Your task to perform on an android device: set the stopwatch Image 0: 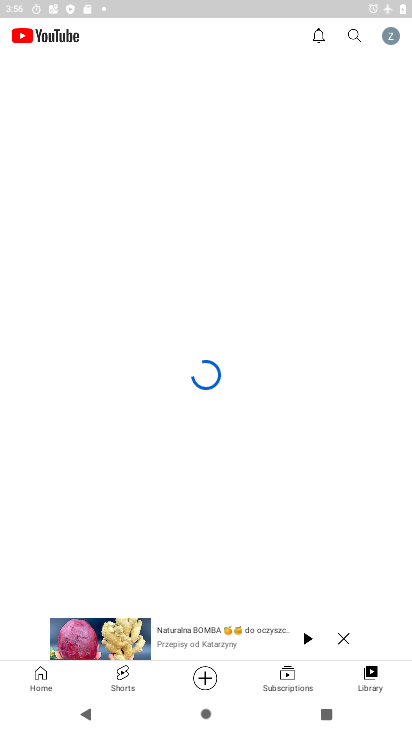
Step 0: drag from (251, 718) to (262, 386)
Your task to perform on an android device: set the stopwatch Image 1: 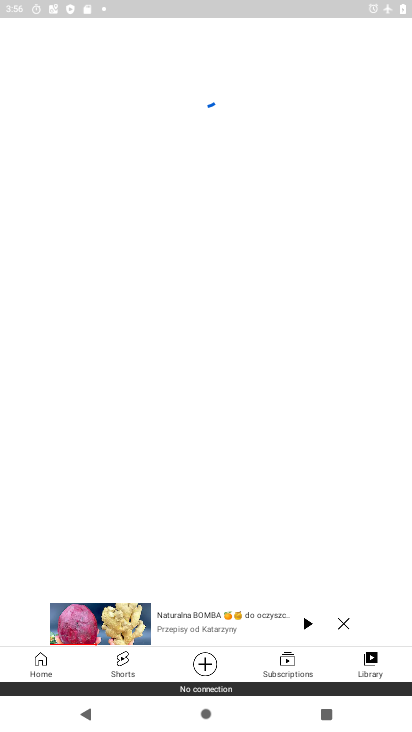
Step 1: press home button
Your task to perform on an android device: set the stopwatch Image 2: 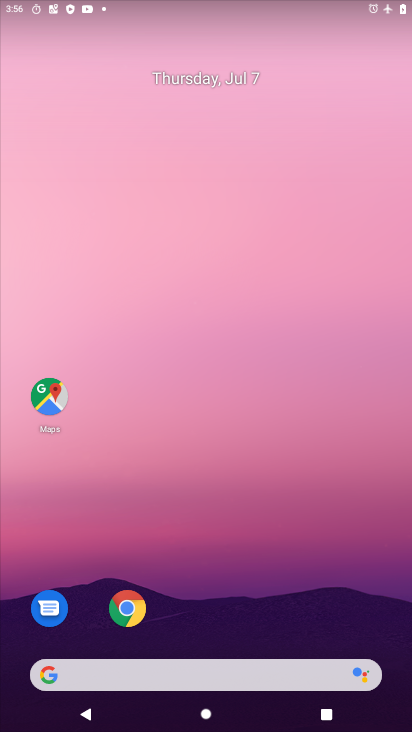
Step 2: drag from (240, 709) to (235, 101)
Your task to perform on an android device: set the stopwatch Image 3: 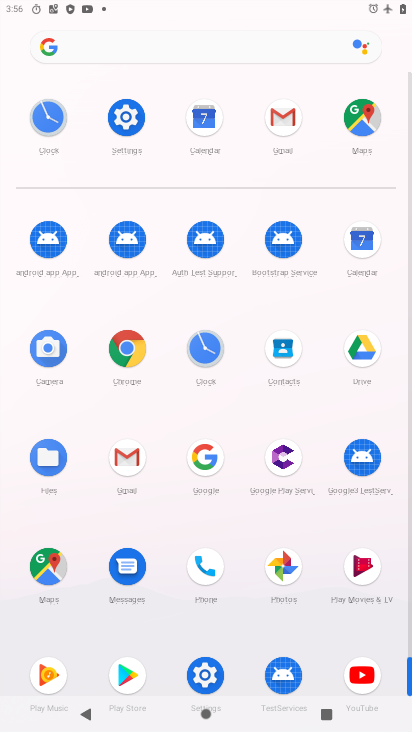
Step 3: click (210, 347)
Your task to perform on an android device: set the stopwatch Image 4: 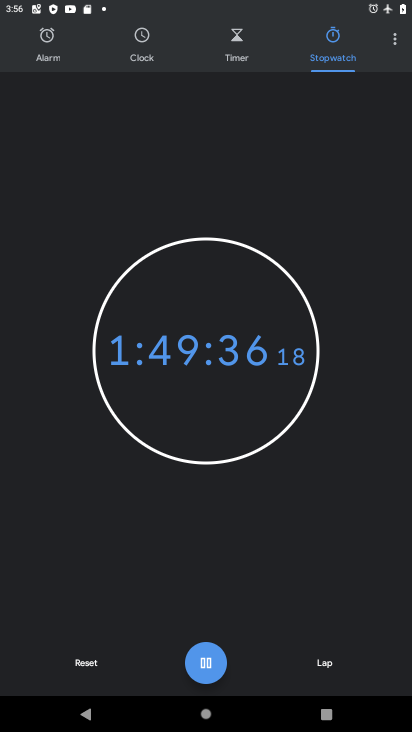
Step 4: click (84, 659)
Your task to perform on an android device: set the stopwatch Image 5: 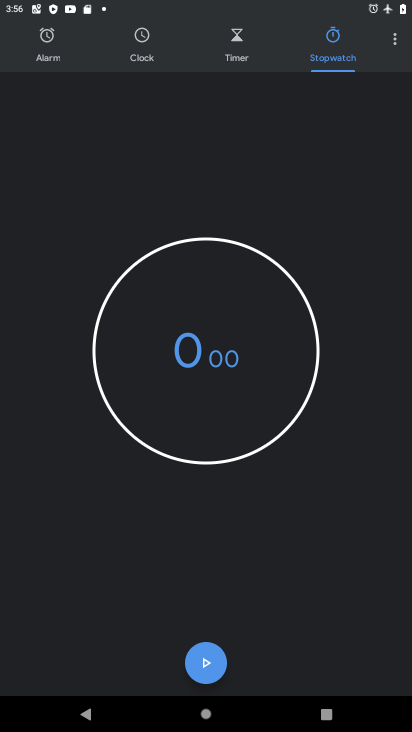
Step 5: click (154, 368)
Your task to perform on an android device: set the stopwatch Image 6: 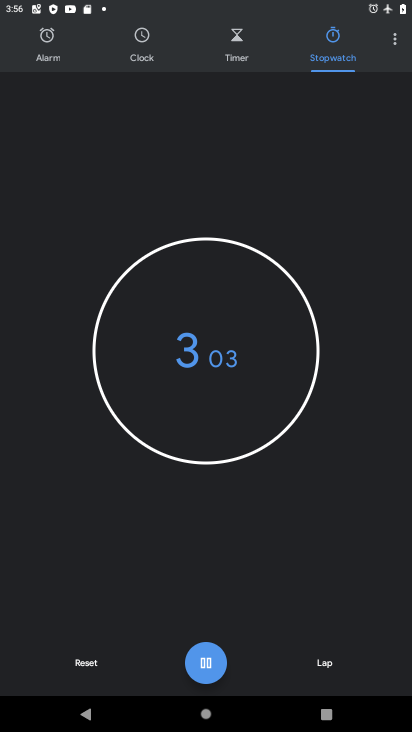
Step 6: type "77"
Your task to perform on an android device: set the stopwatch Image 7: 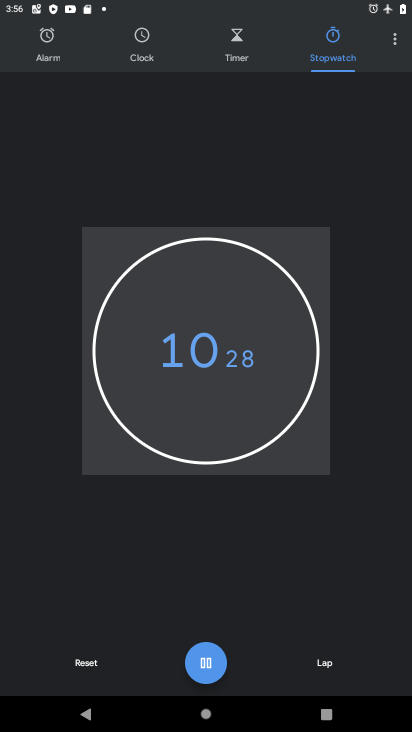
Step 7: task complete